Your task to perform on an android device: Open the web browser Image 0: 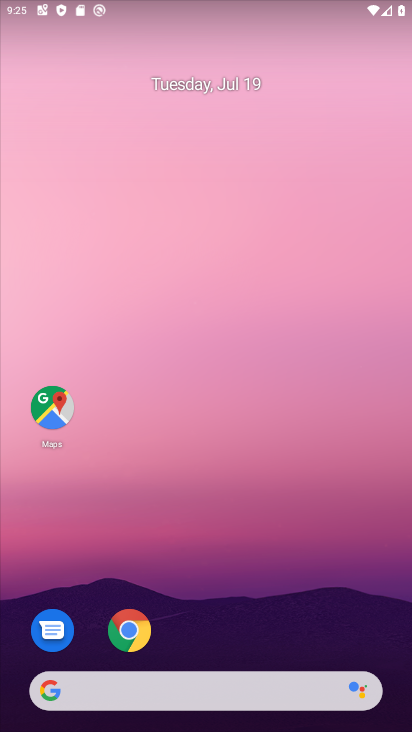
Step 0: click (124, 638)
Your task to perform on an android device: Open the web browser Image 1: 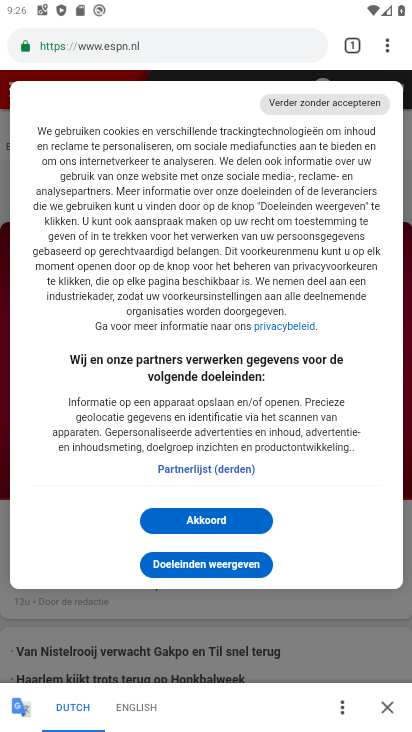
Step 1: task complete